Your task to perform on an android device: Clear all items from cart on newegg.com. Add "razer kraken" to the cart on newegg.com Image 0: 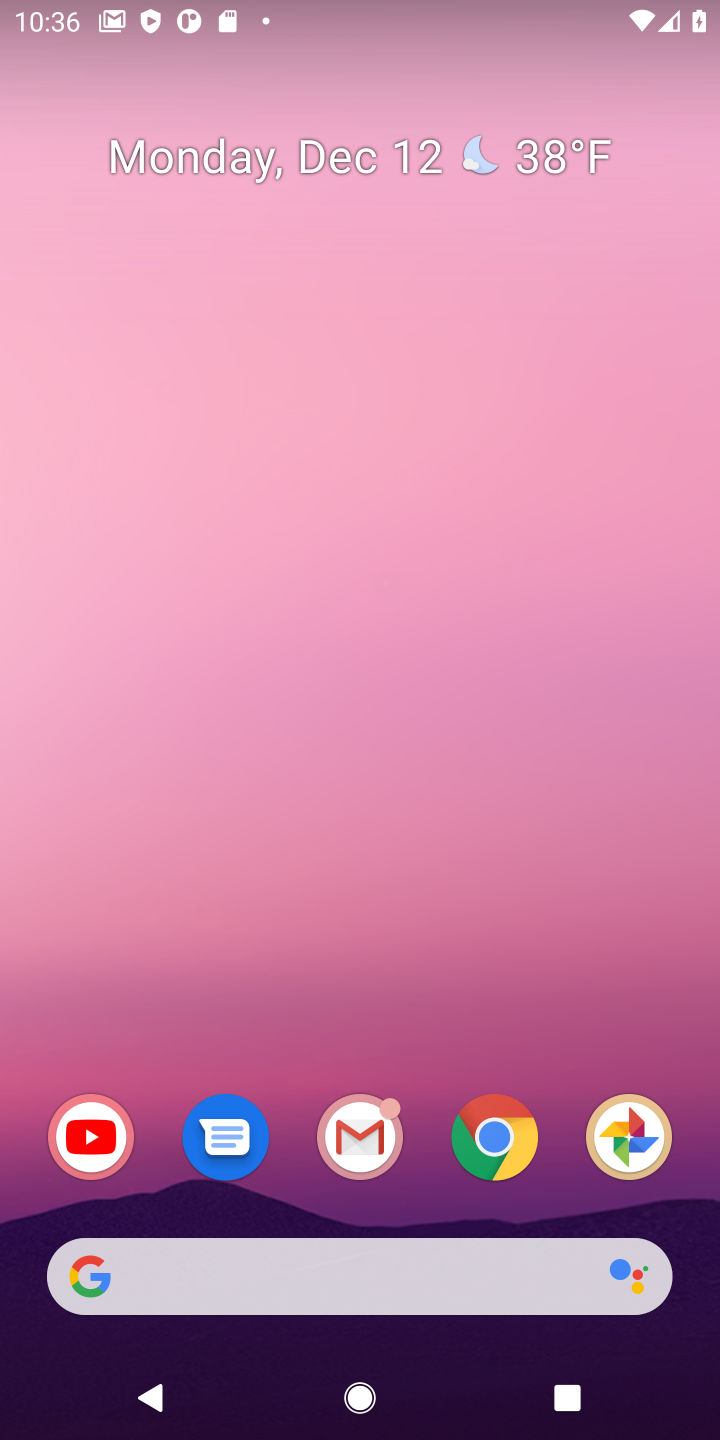
Step 0: click (401, 1298)
Your task to perform on an android device: Clear all items from cart on newegg.com. Add "razer kraken" to the cart on newegg.com Image 1: 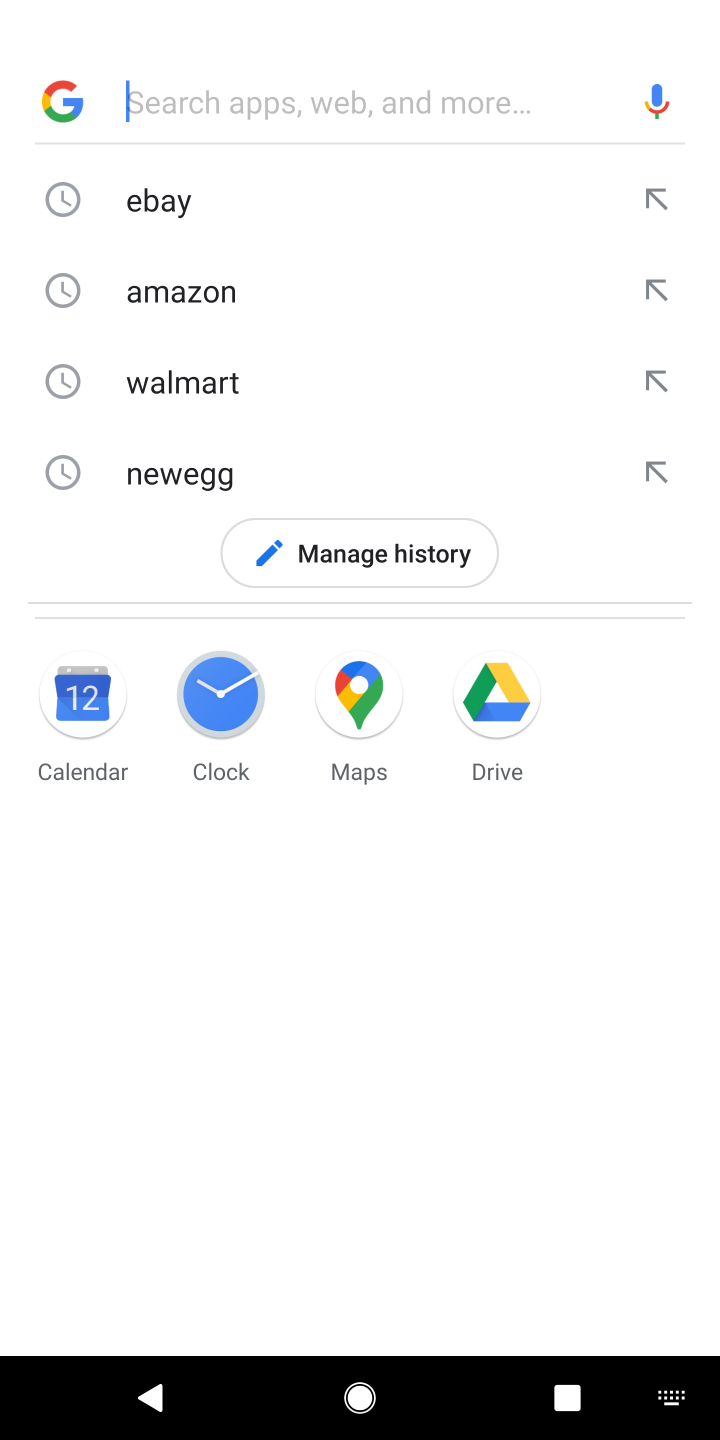
Step 1: click (307, 462)
Your task to perform on an android device: Clear all items from cart on newegg.com. Add "razer kraken" to the cart on newegg.com Image 2: 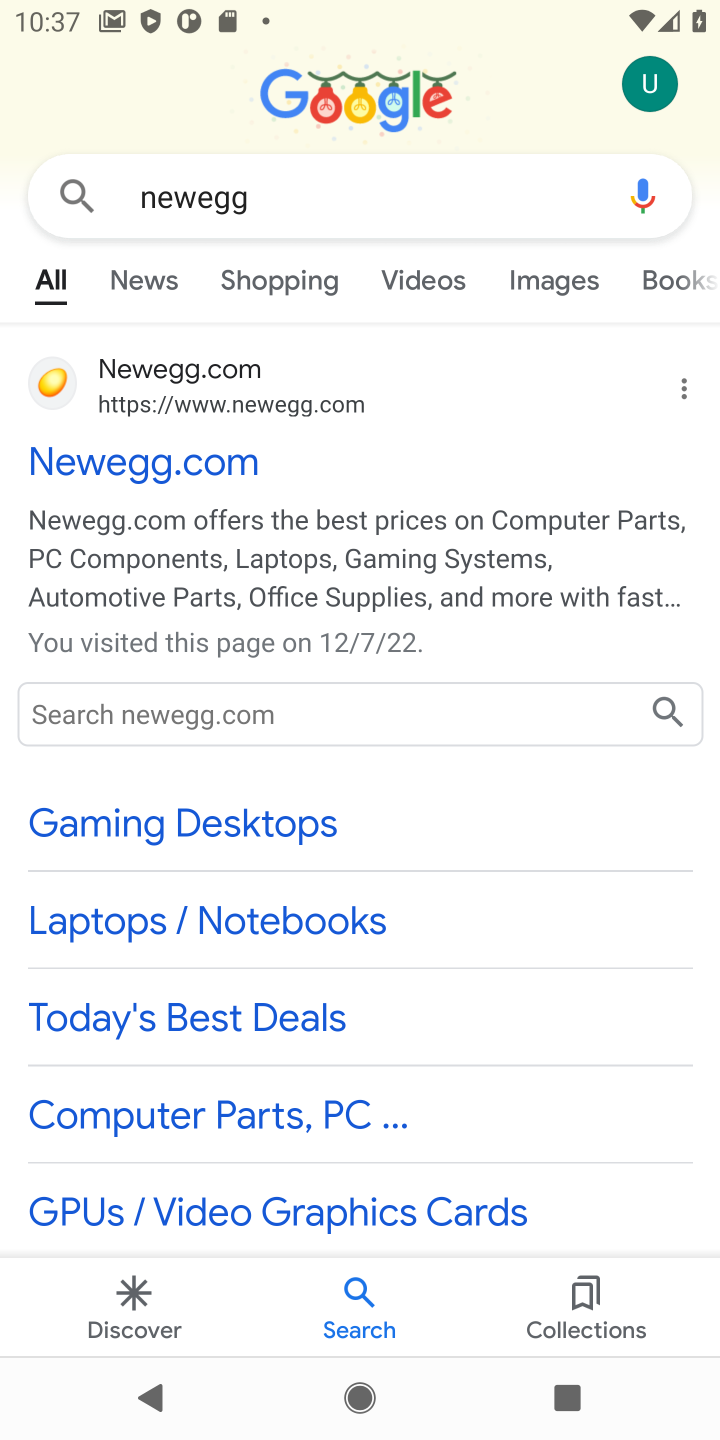
Step 2: click (222, 456)
Your task to perform on an android device: Clear all items from cart on newegg.com. Add "razer kraken" to the cart on newegg.com Image 3: 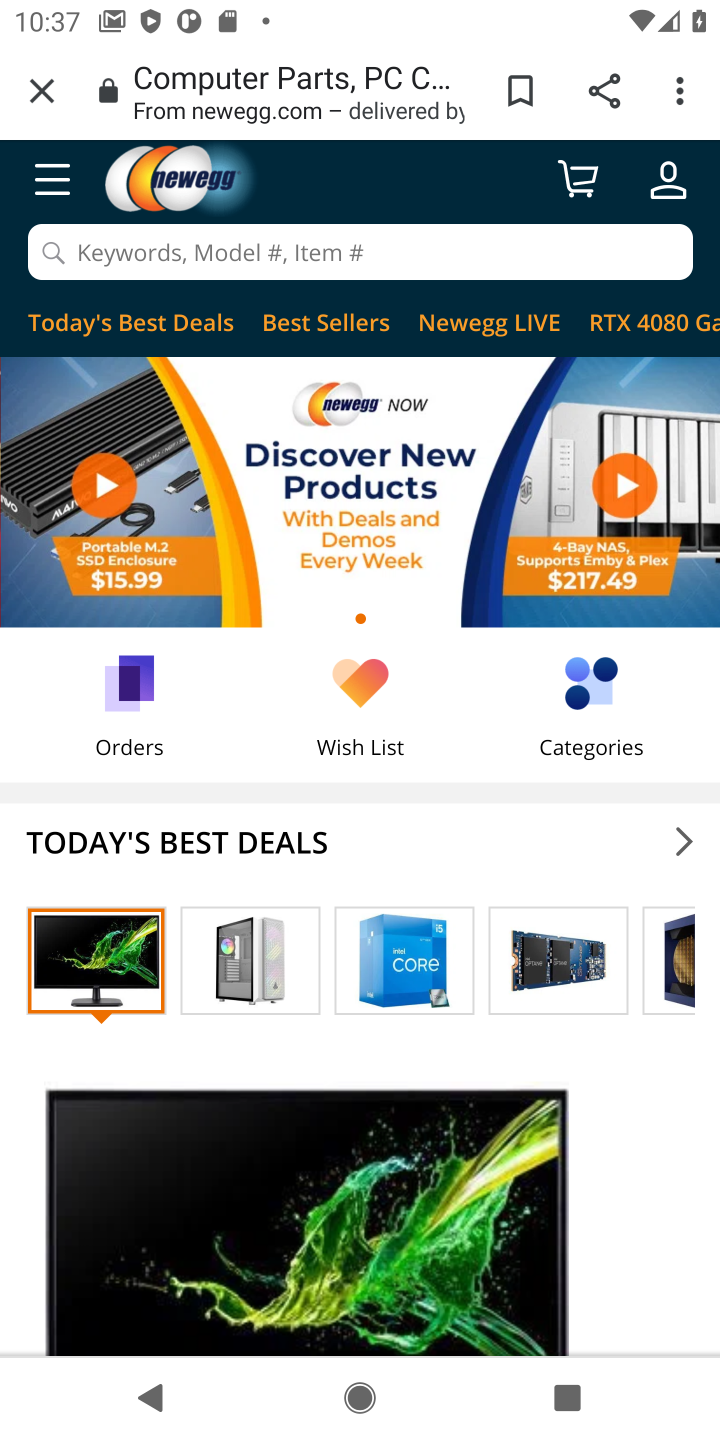
Step 3: click (156, 259)
Your task to perform on an android device: Clear all items from cart on newegg.com. Add "razer kraken" to the cart on newegg.com Image 4: 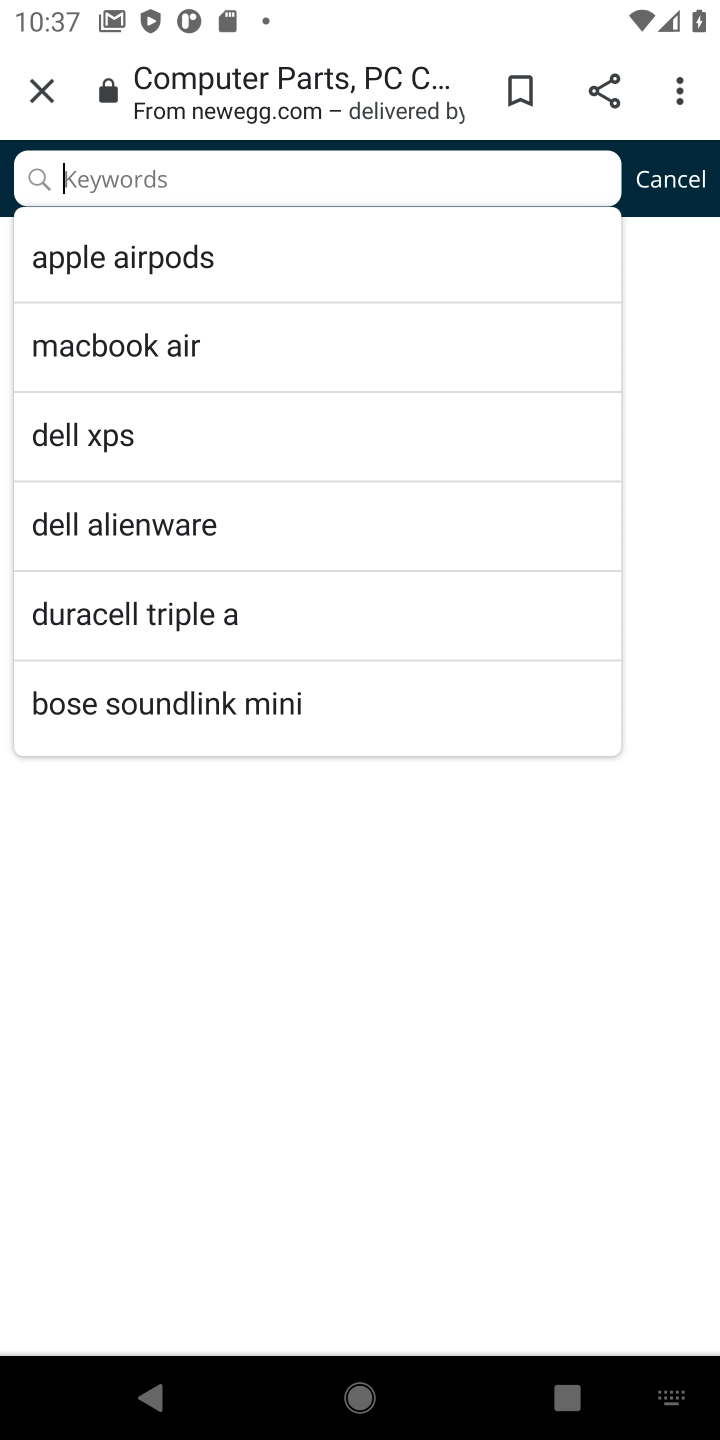
Step 4: type "razer karken"
Your task to perform on an android device: Clear all items from cart on newegg.com. Add "razer kraken" to the cart on newegg.com Image 5: 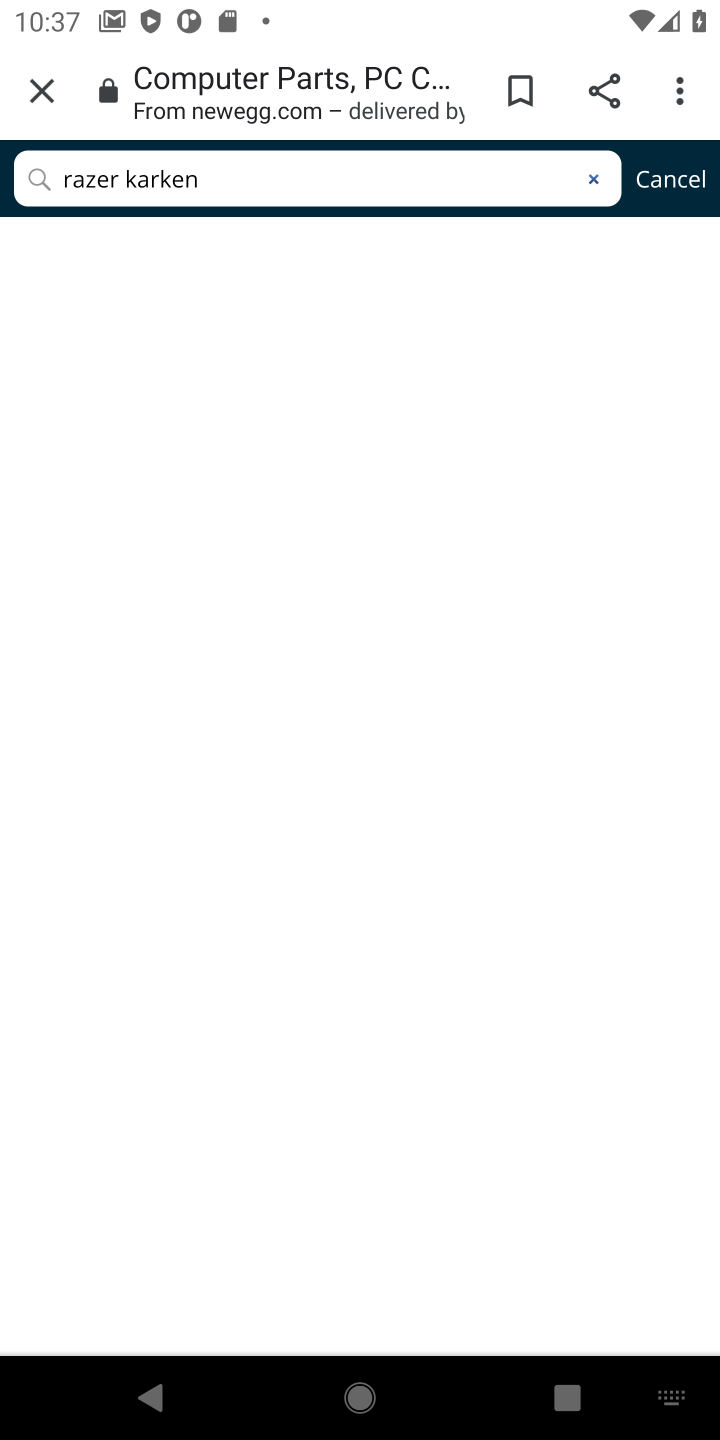
Step 5: task complete